Your task to perform on an android device: Go to display settings Image 0: 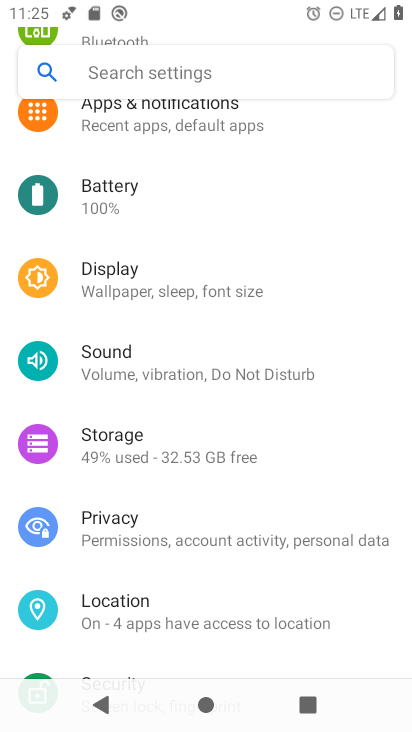
Step 0: click (113, 297)
Your task to perform on an android device: Go to display settings Image 1: 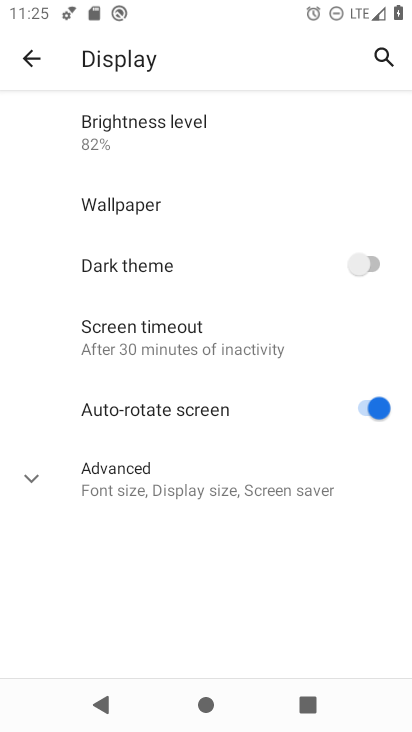
Step 1: task complete